Your task to perform on an android device: turn pop-ups off in chrome Image 0: 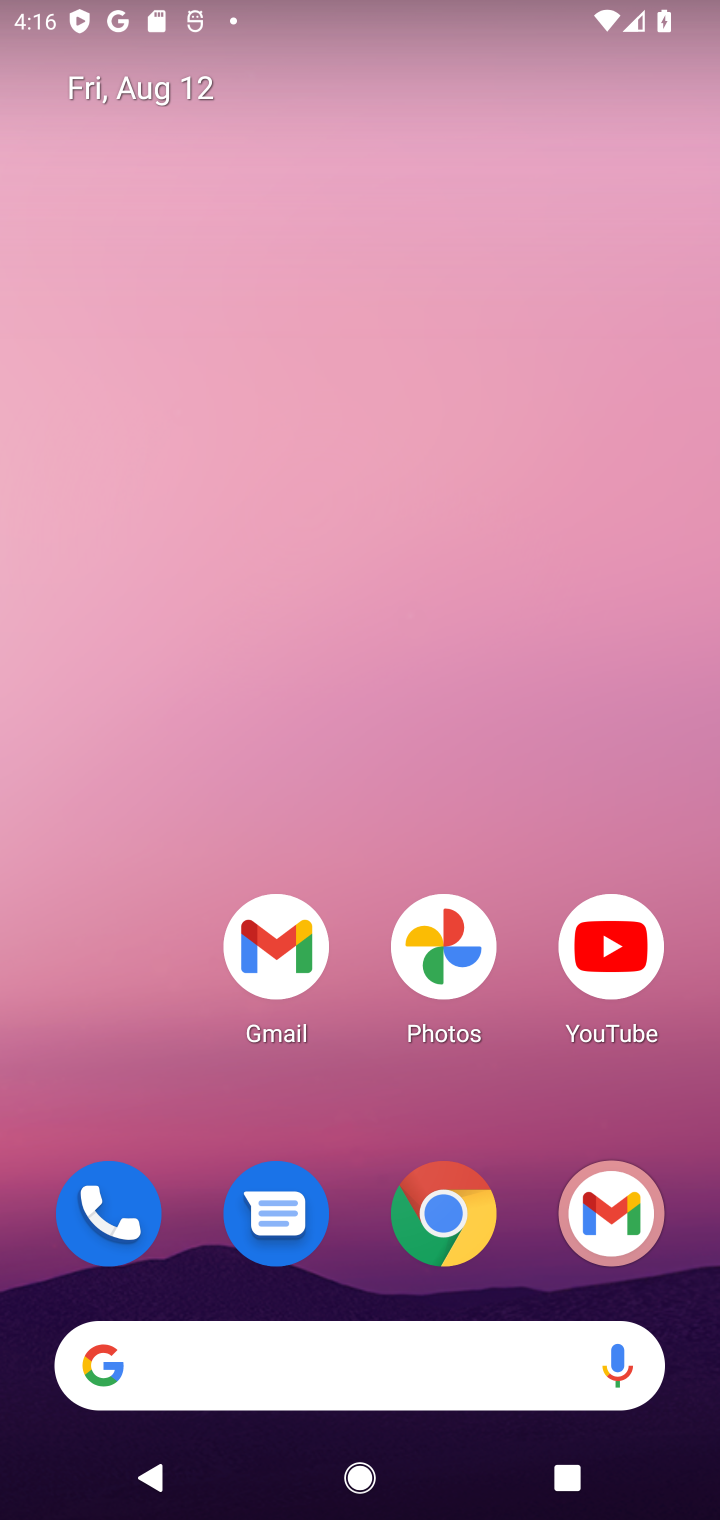
Step 0: drag from (354, 986) to (532, 6)
Your task to perform on an android device: turn pop-ups off in chrome Image 1: 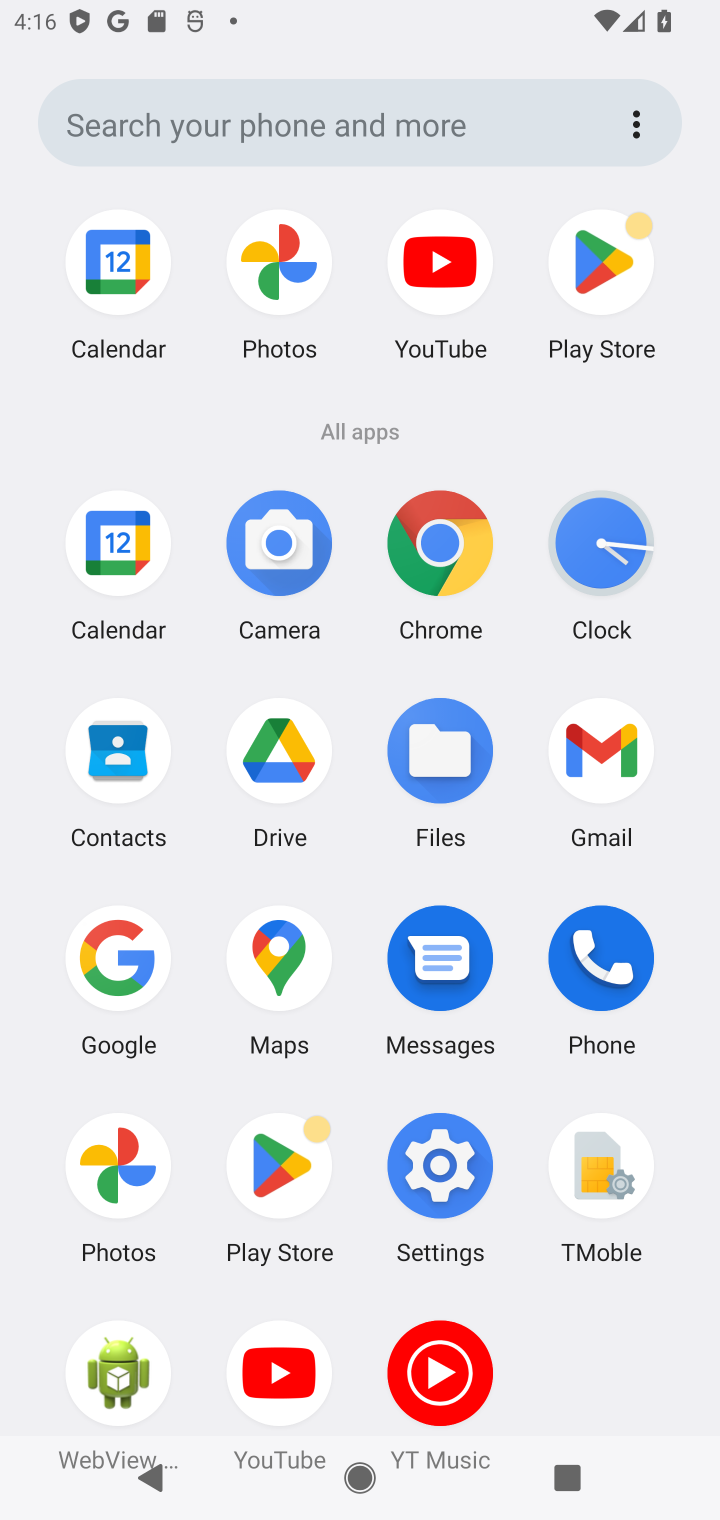
Step 1: click (437, 543)
Your task to perform on an android device: turn pop-ups off in chrome Image 2: 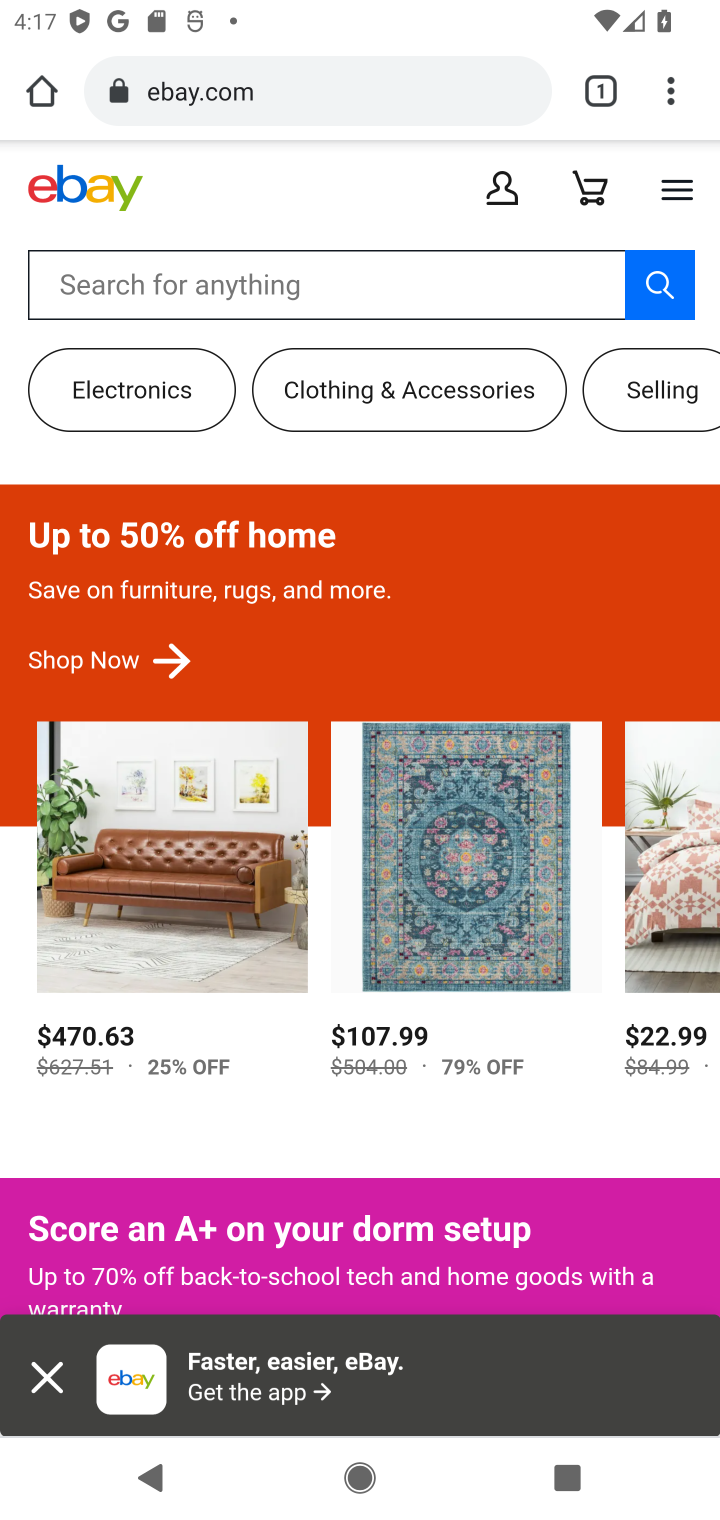
Step 2: drag from (668, 68) to (420, 1272)
Your task to perform on an android device: turn pop-ups off in chrome Image 3: 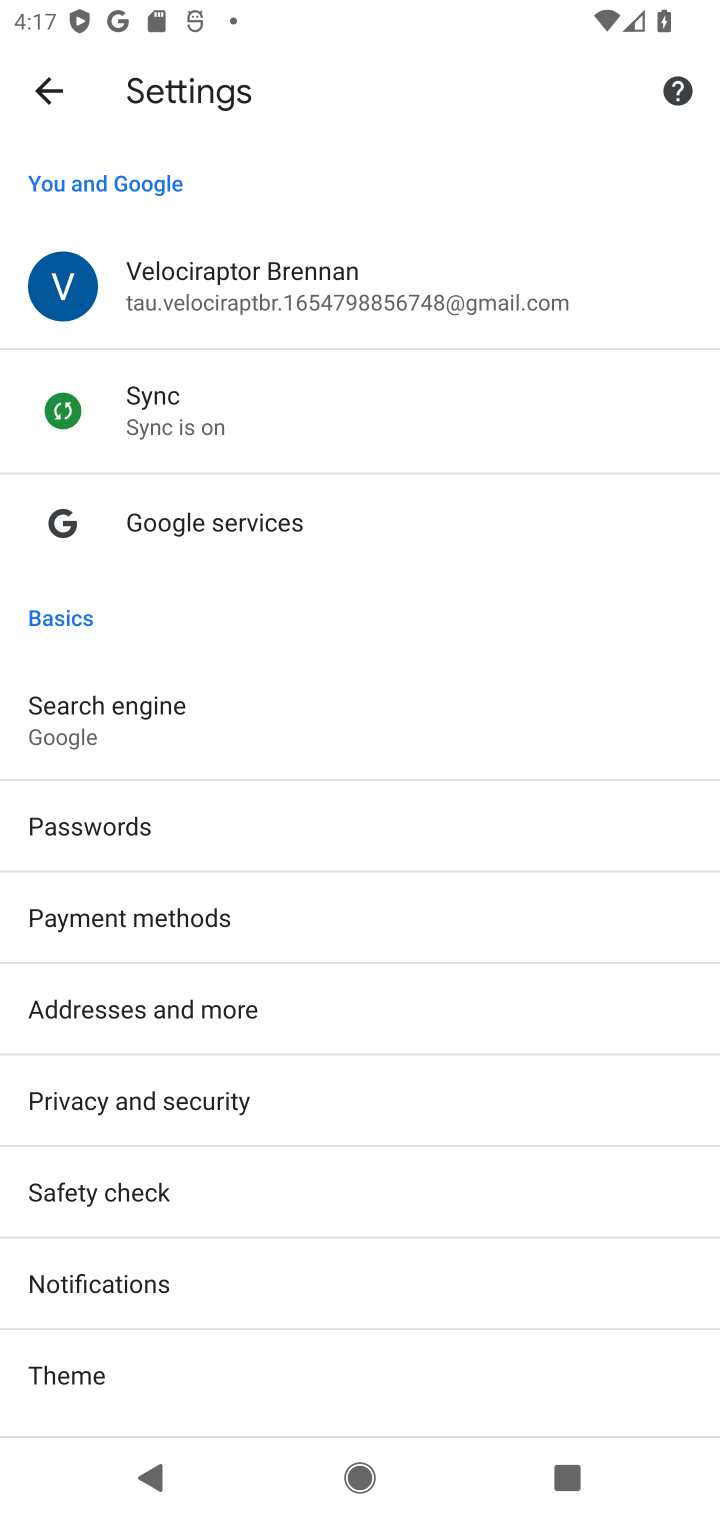
Step 3: drag from (170, 1412) to (337, 365)
Your task to perform on an android device: turn pop-ups off in chrome Image 4: 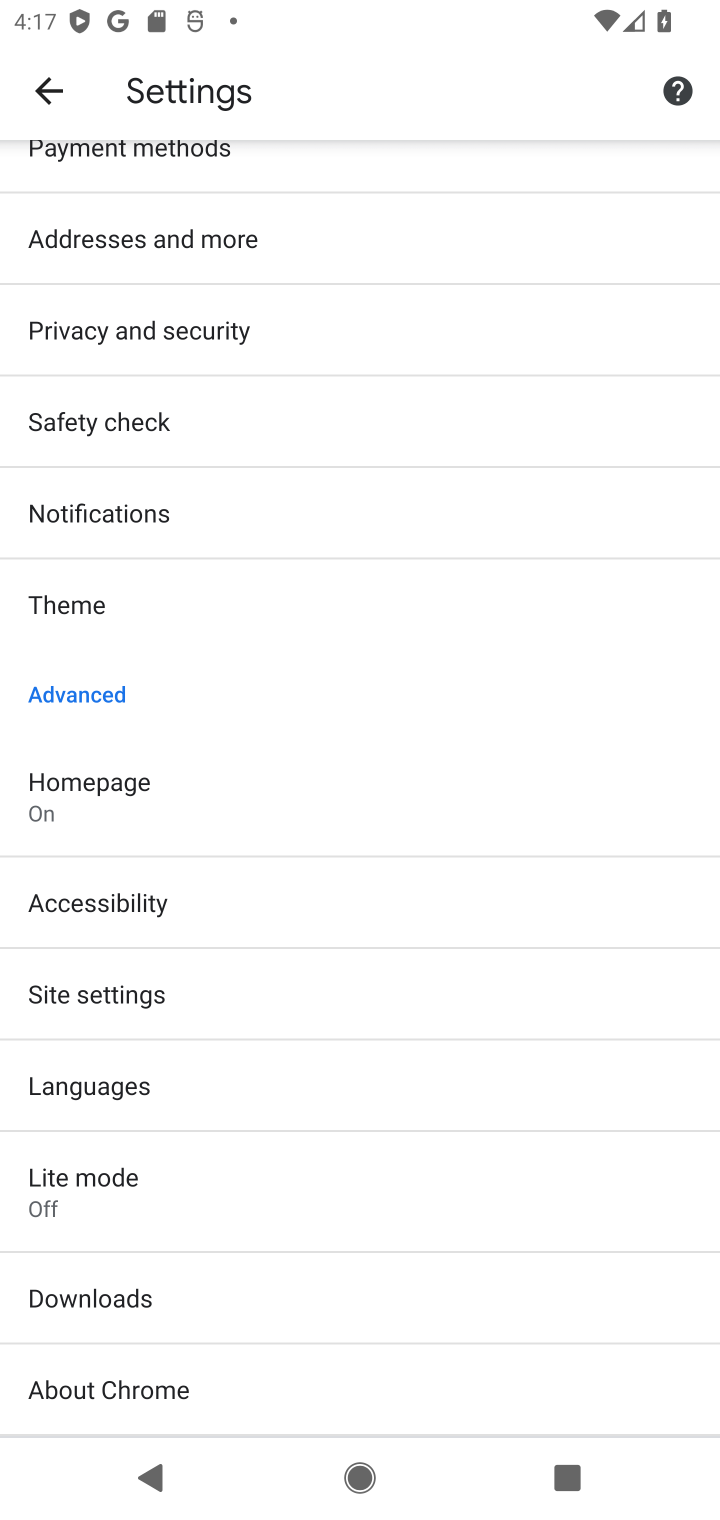
Step 4: click (116, 1000)
Your task to perform on an android device: turn pop-ups off in chrome Image 5: 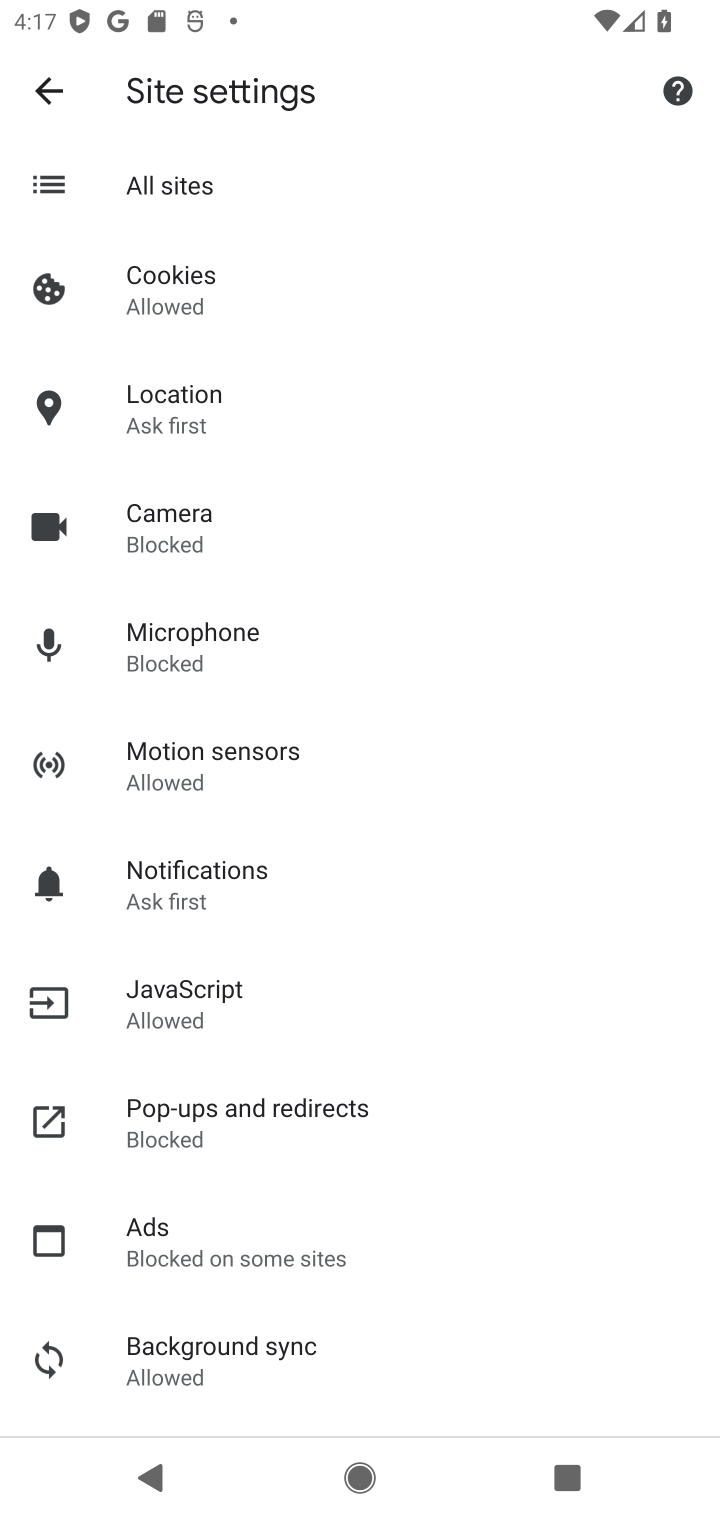
Step 5: click (272, 1113)
Your task to perform on an android device: turn pop-ups off in chrome Image 6: 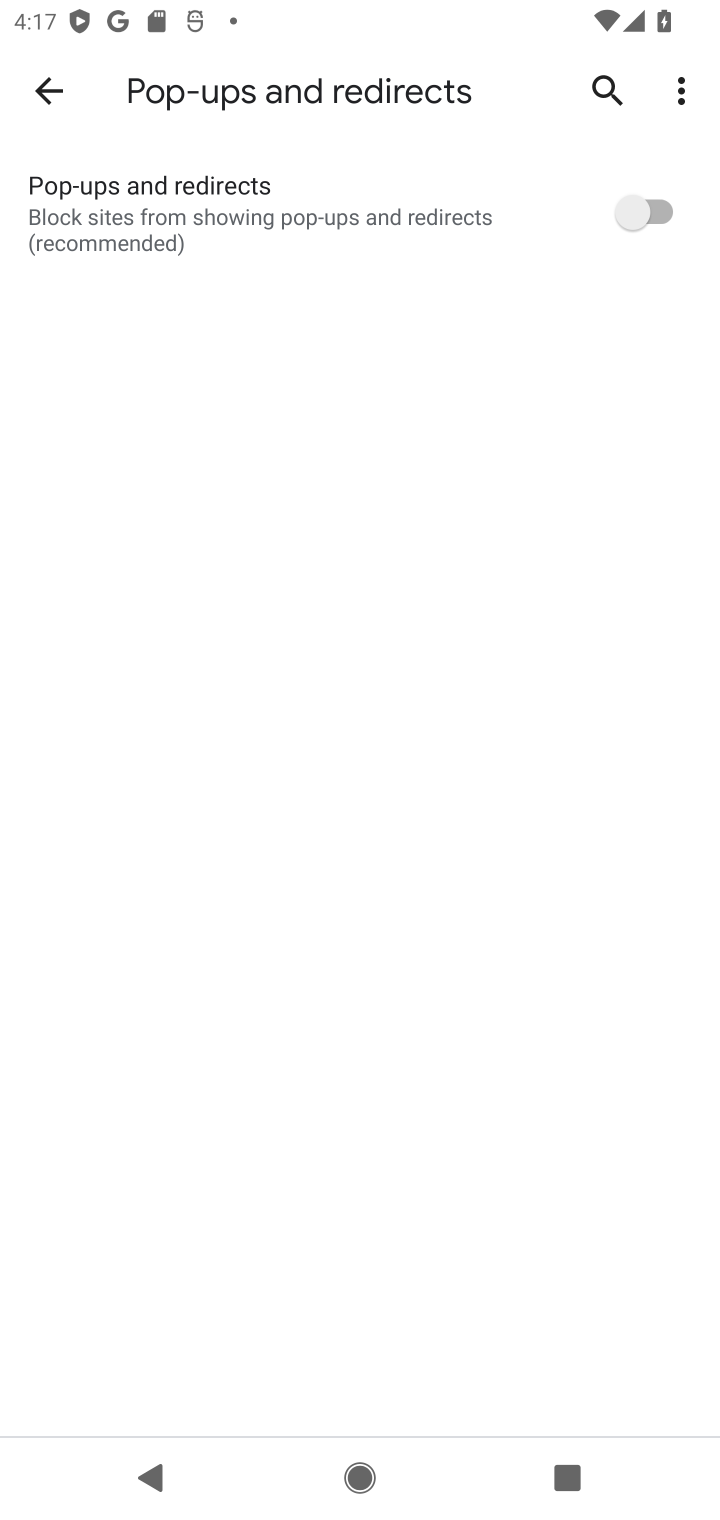
Step 6: task complete